Your task to perform on an android device: What's the weather going to be tomorrow? Image 0: 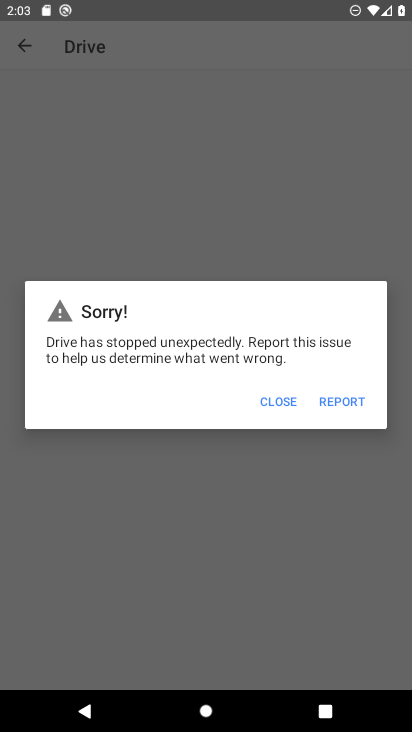
Step 0: press back button
Your task to perform on an android device: What's the weather going to be tomorrow? Image 1: 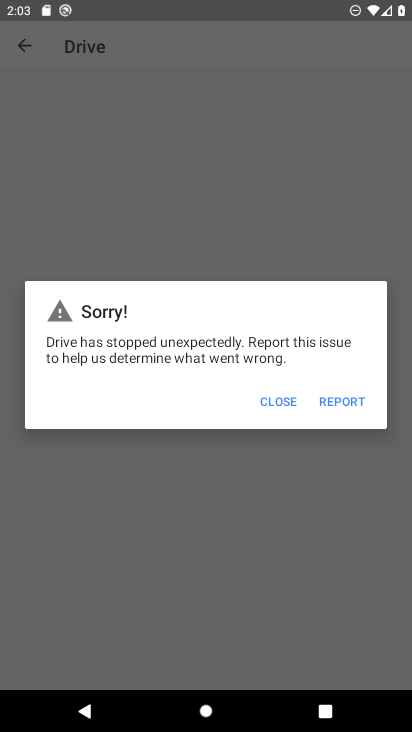
Step 1: press back button
Your task to perform on an android device: What's the weather going to be tomorrow? Image 2: 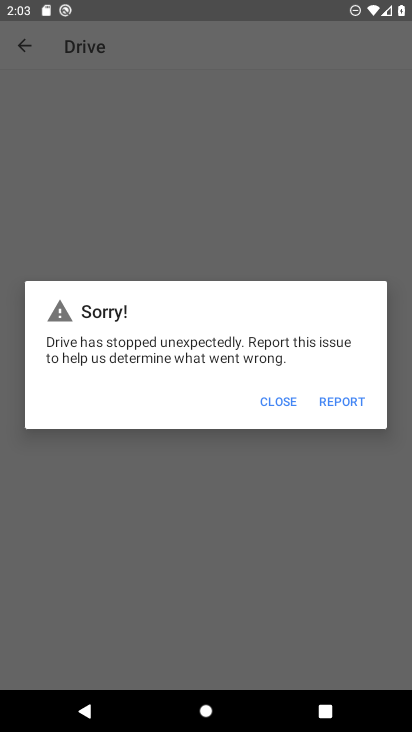
Step 2: press back button
Your task to perform on an android device: What's the weather going to be tomorrow? Image 3: 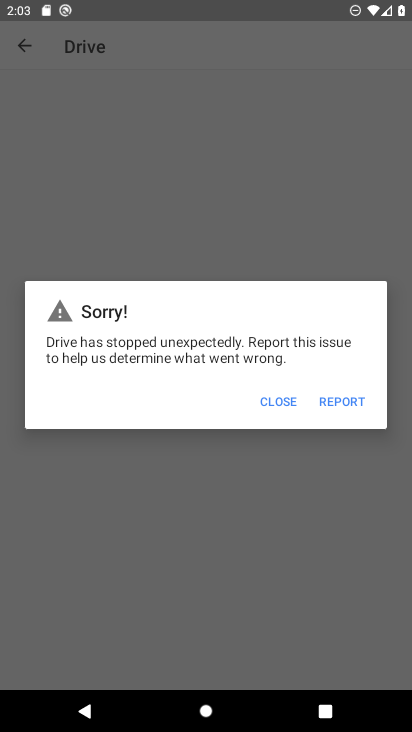
Step 3: press back button
Your task to perform on an android device: What's the weather going to be tomorrow? Image 4: 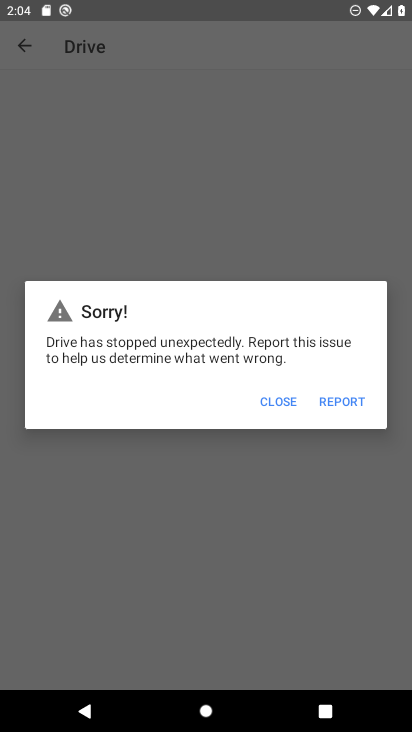
Step 4: press back button
Your task to perform on an android device: What's the weather going to be tomorrow? Image 5: 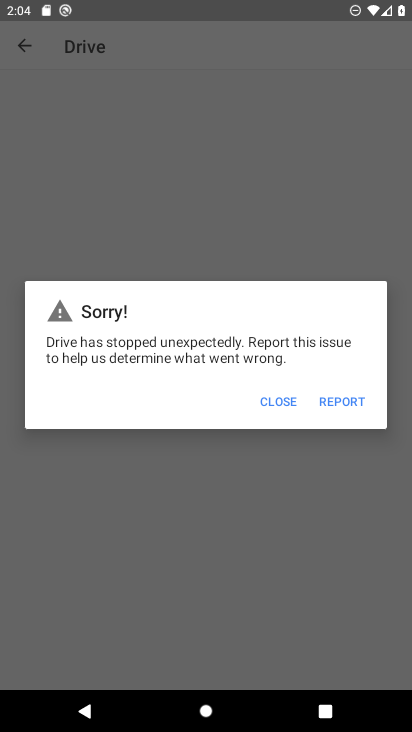
Step 5: press back button
Your task to perform on an android device: What's the weather going to be tomorrow? Image 6: 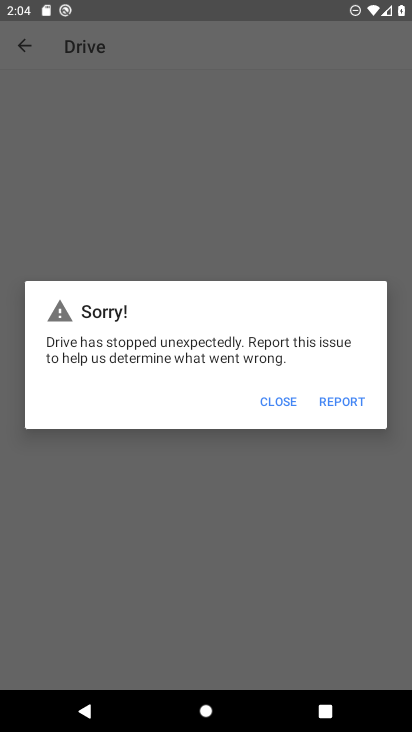
Step 6: press home button
Your task to perform on an android device: What's the weather going to be tomorrow? Image 7: 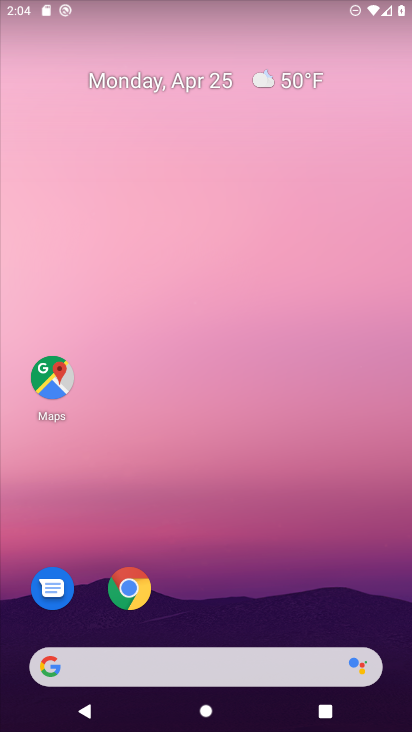
Step 7: click (266, 91)
Your task to perform on an android device: What's the weather going to be tomorrow? Image 8: 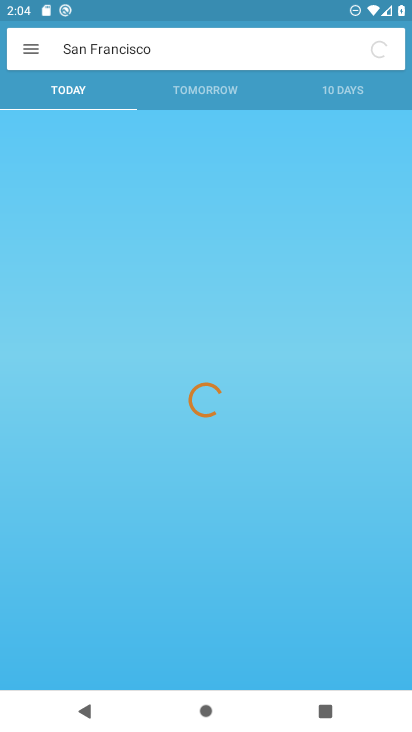
Step 8: click (252, 84)
Your task to perform on an android device: What's the weather going to be tomorrow? Image 9: 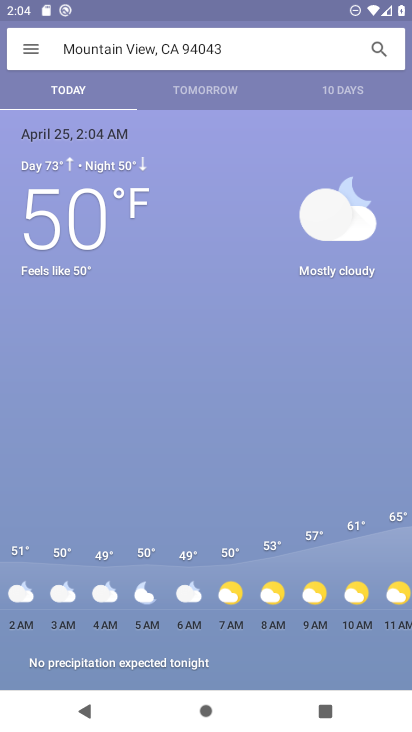
Step 9: click (206, 80)
Your task to perform on an android device: What's the weather going to be tomorrow? Image 10: 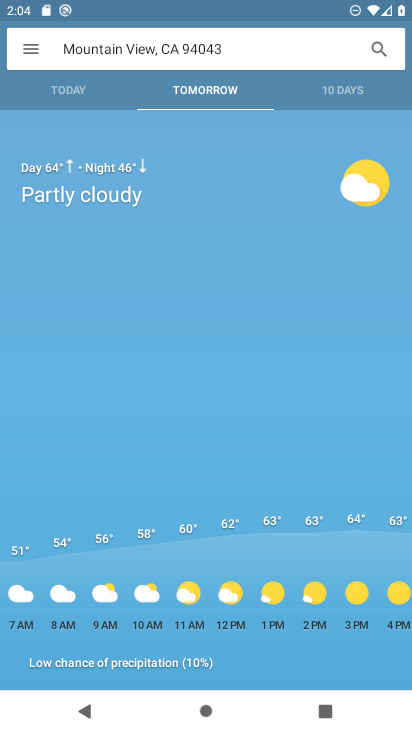
Step 10: task complete